Your task to perform on an android device: toggle location history Image 0: 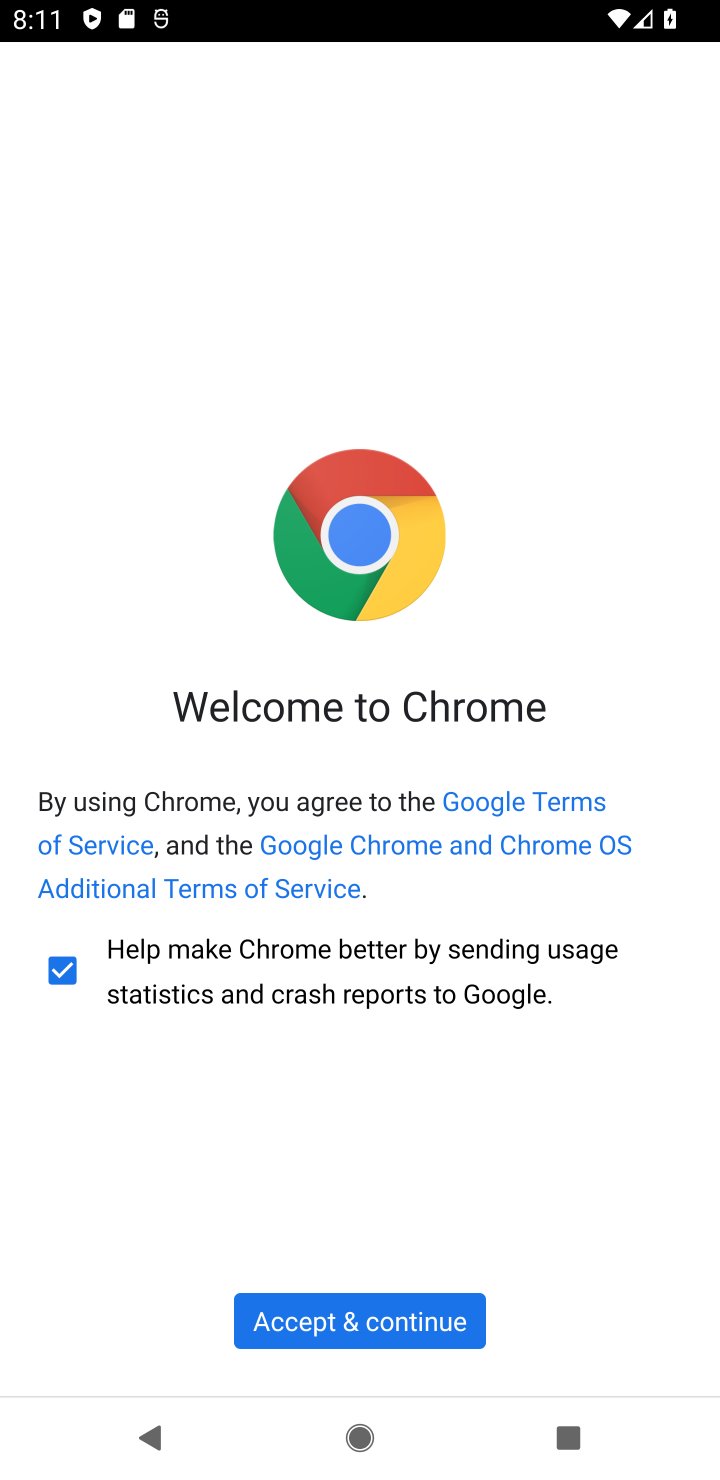
Step 0: press home button
Your task to perform on an android device: toggle location history Image 1: 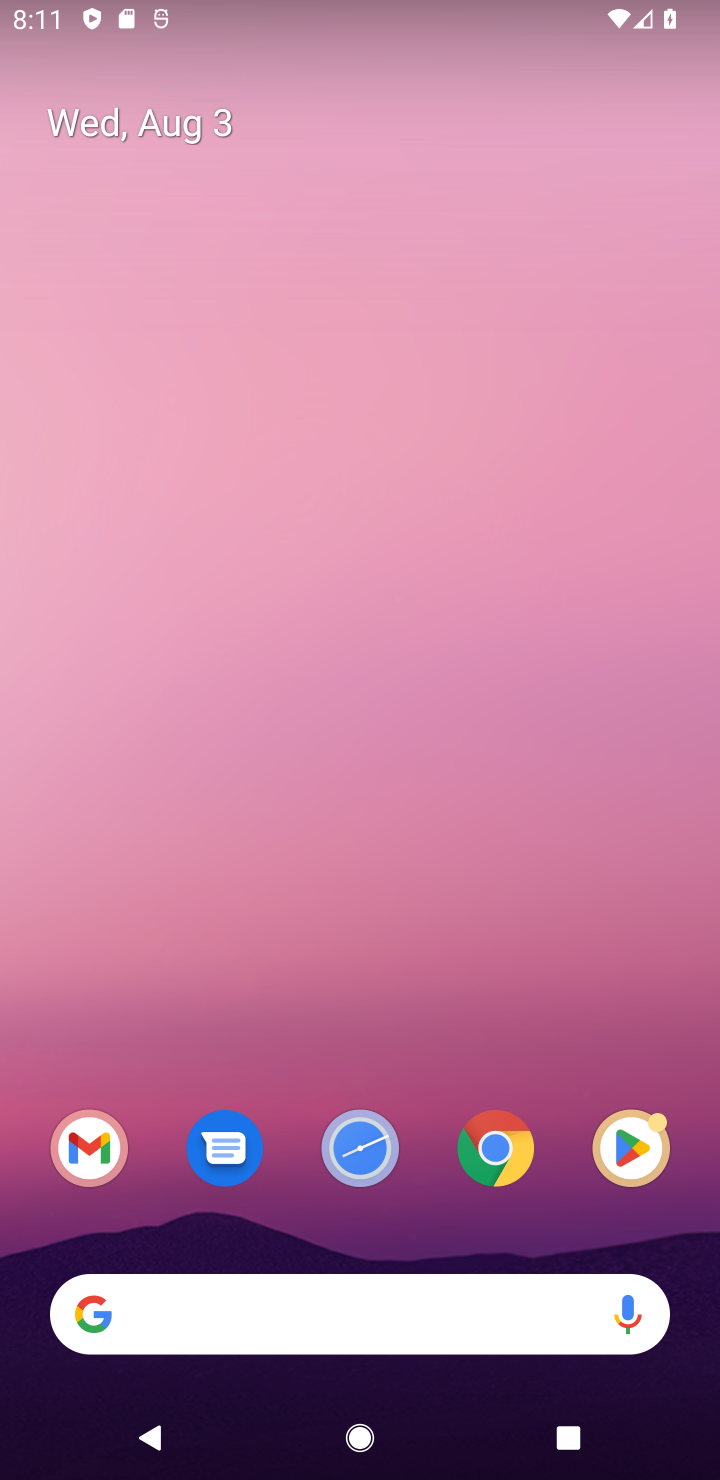
Step 1: drag from (346, 1027) to (370, 225)
Your task to perform on an android device: toggle location history Image 2: 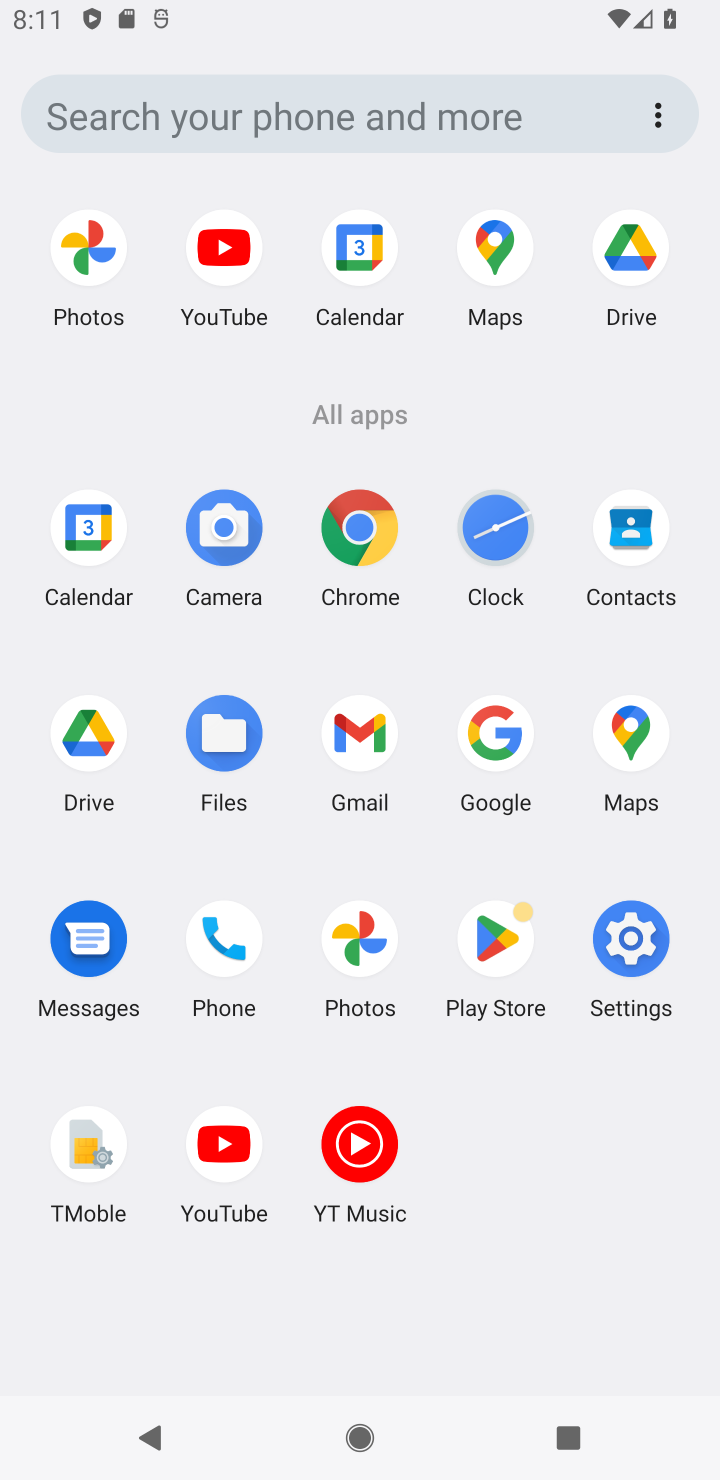
Step 2: click (636, 953)
Your task to perform on an android device: toggle location history Image 3: 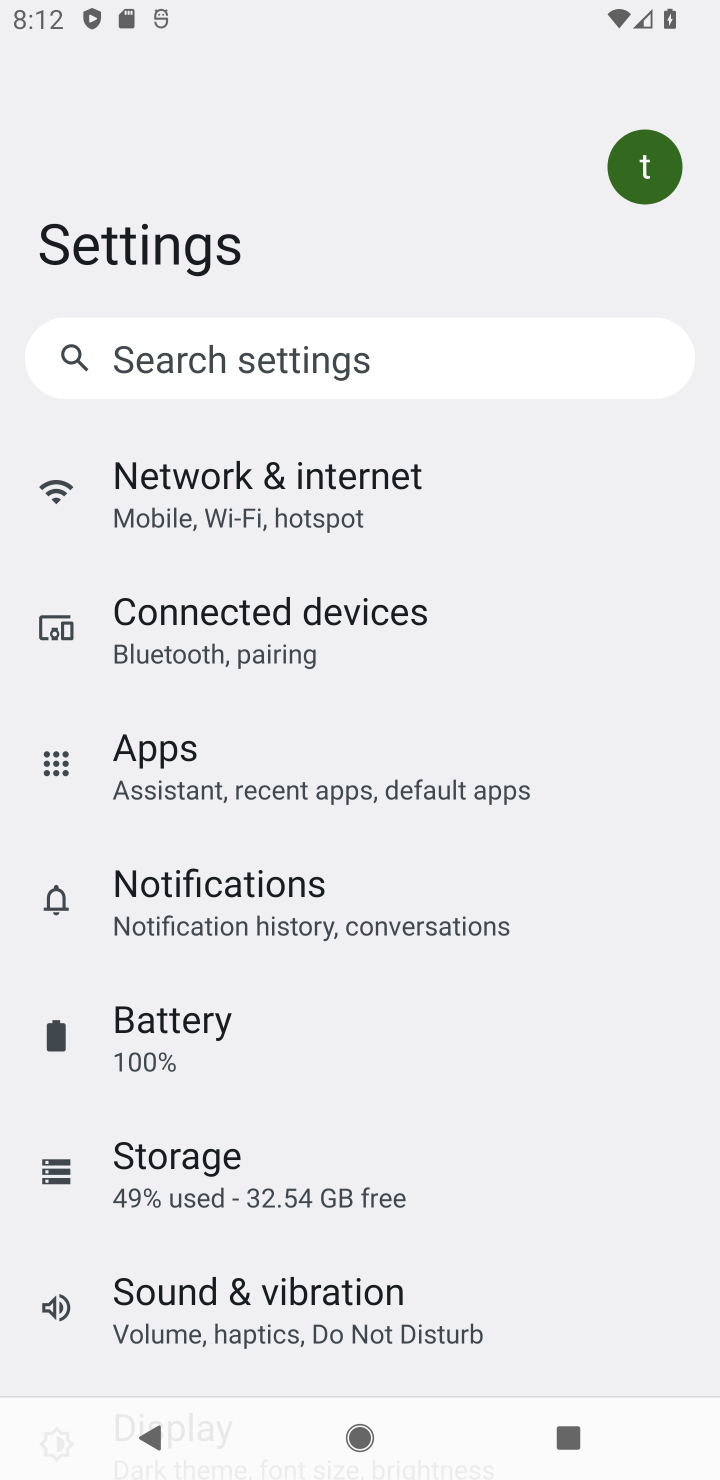
Step 3: task complete